Your task to perform on an android device: all mails in gmail Image 0: 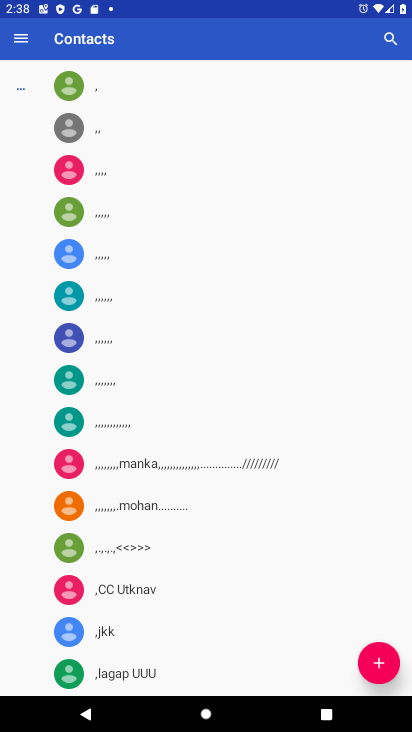
Step 0: press home button
Your task to perform on an android device: all mails in gmail Image 1: 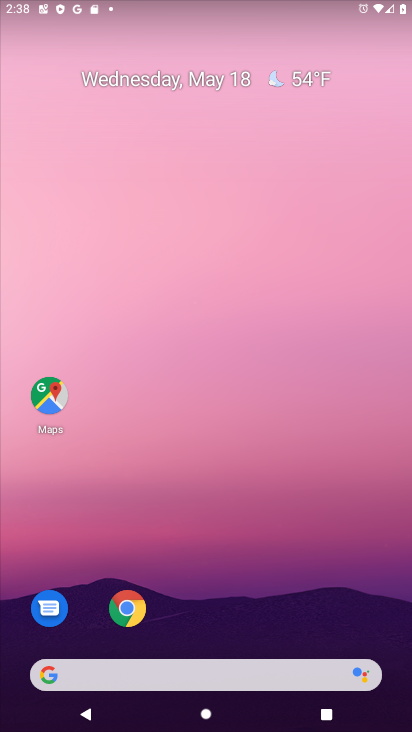
Step 1: drag from (320, 578) to (345, 10)
Your task to perform on an android device: all mails in gmail Image 2: 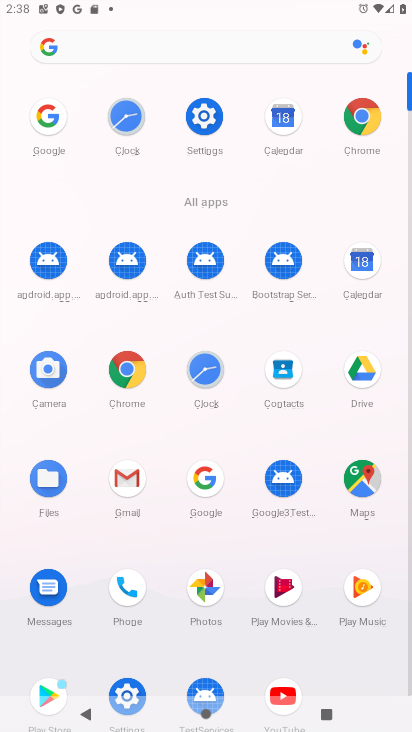
Step 2: click (135, 489)
Your task to perform on an android device: all mails in gmail Image 3: 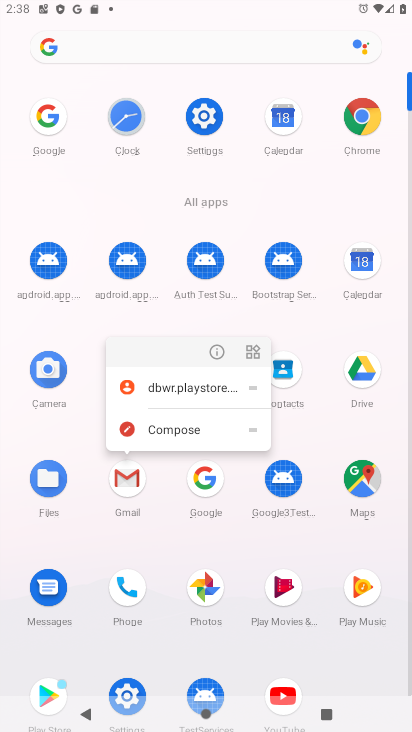
Step 3: click (128, 477)
Your task to perform on an android device: all mails in gmail Image 4: 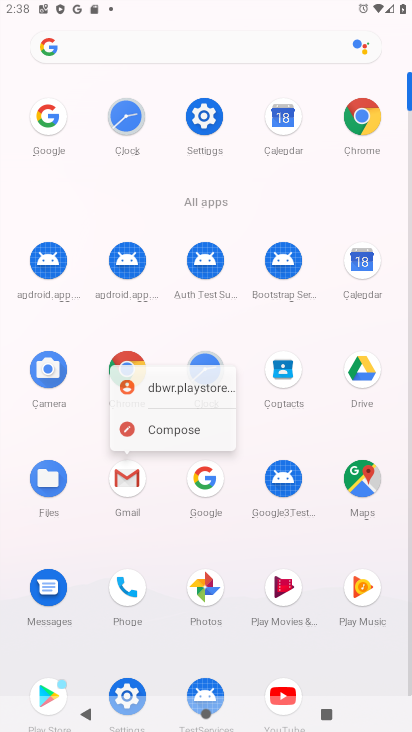
Step 4: click (128, 477)
Your task to perform on an android device: all mails in gmail Image 5: 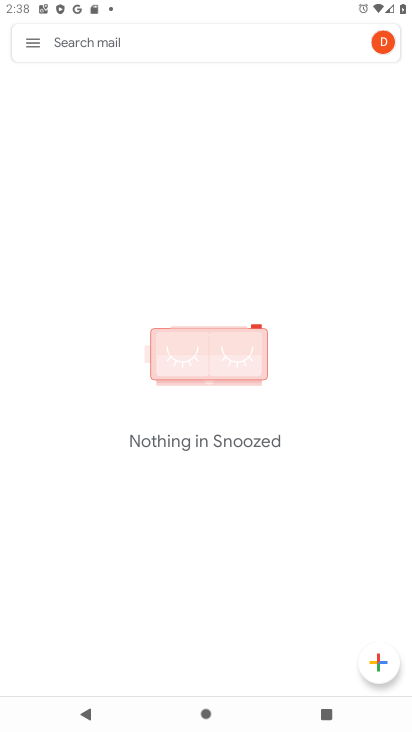
Step 5: click (26, 42)
Your task to perform on an android device: all mails in gmail Image 6: 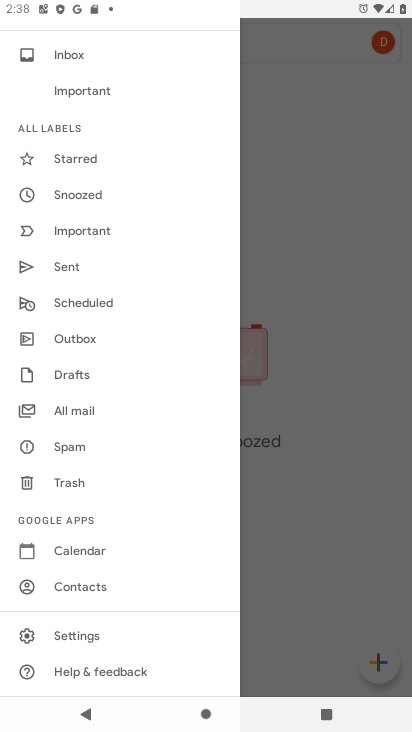
Step 6: click (85, 416)
Your task to perform on an android device: all mails in gmail Image 7: 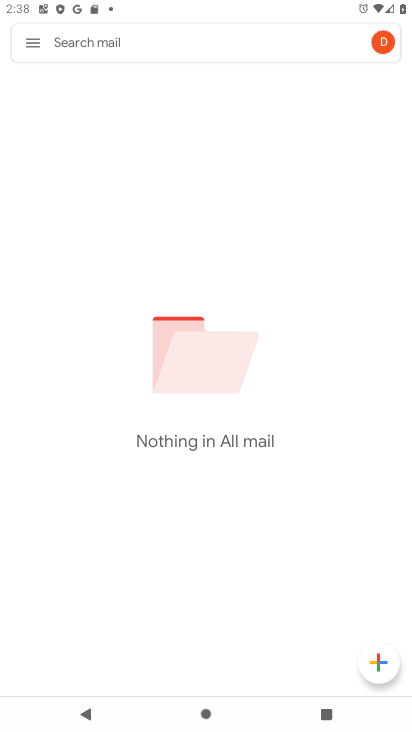
Step 7: task complete